Your task to perform on an android device: What is the recent news? Image 0: 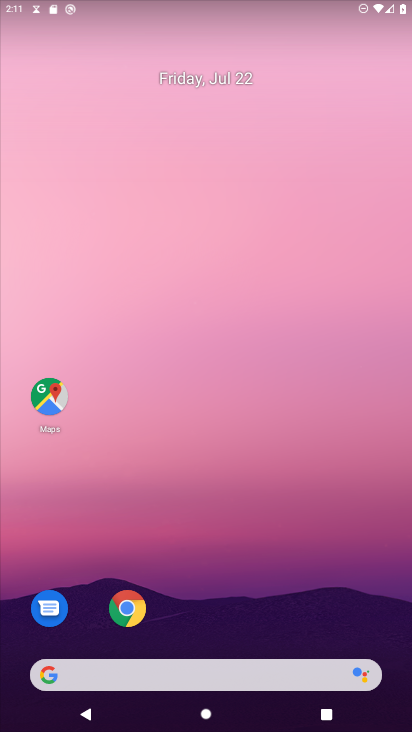
Step 0: click (198, 678)
Your task to perform on an android device: What is the recent news? Image 1: 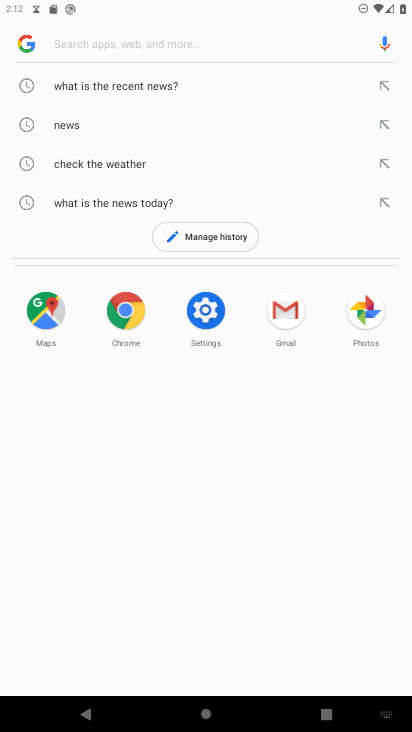
Step 1: type "what is the recent news"
Your task to perform on an android device: What is the recent news? Image 2: 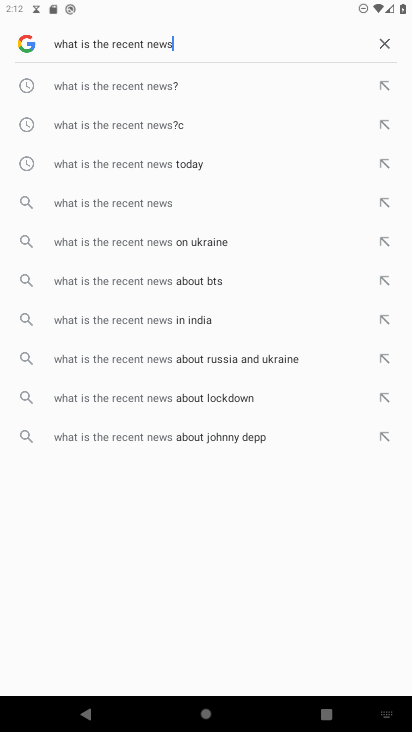
Step 2: click (101, 91)
Your task to perform on an android device: What is the recent news? Image 3: 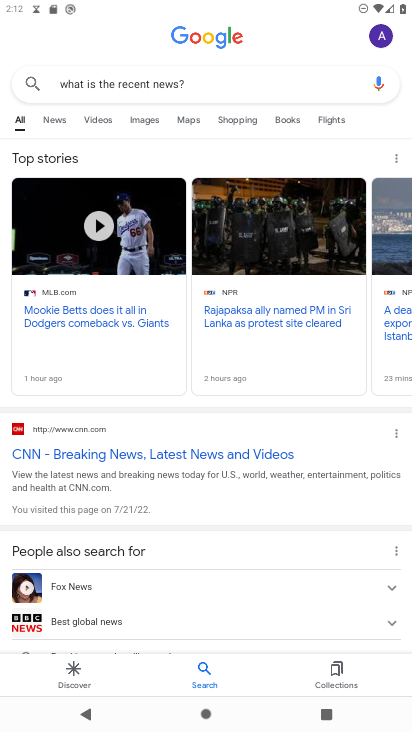
Step 3: click (47, 118)
Your task to perform on an android device: What is the recent news? Image 4: 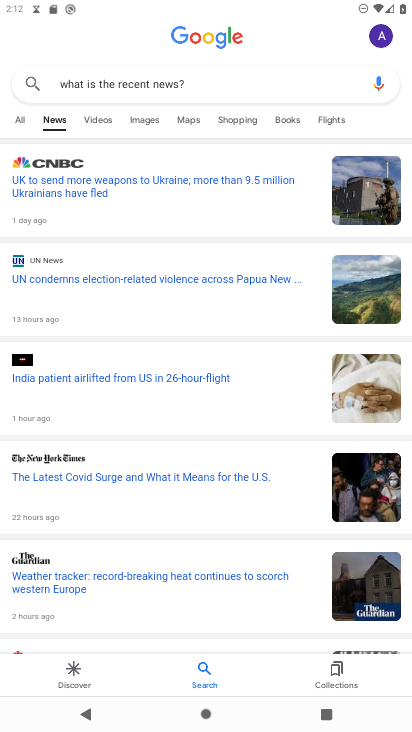
Step 4: task complete